Your task to perform on an android device: Search for a new desk on IKEA Image 0: 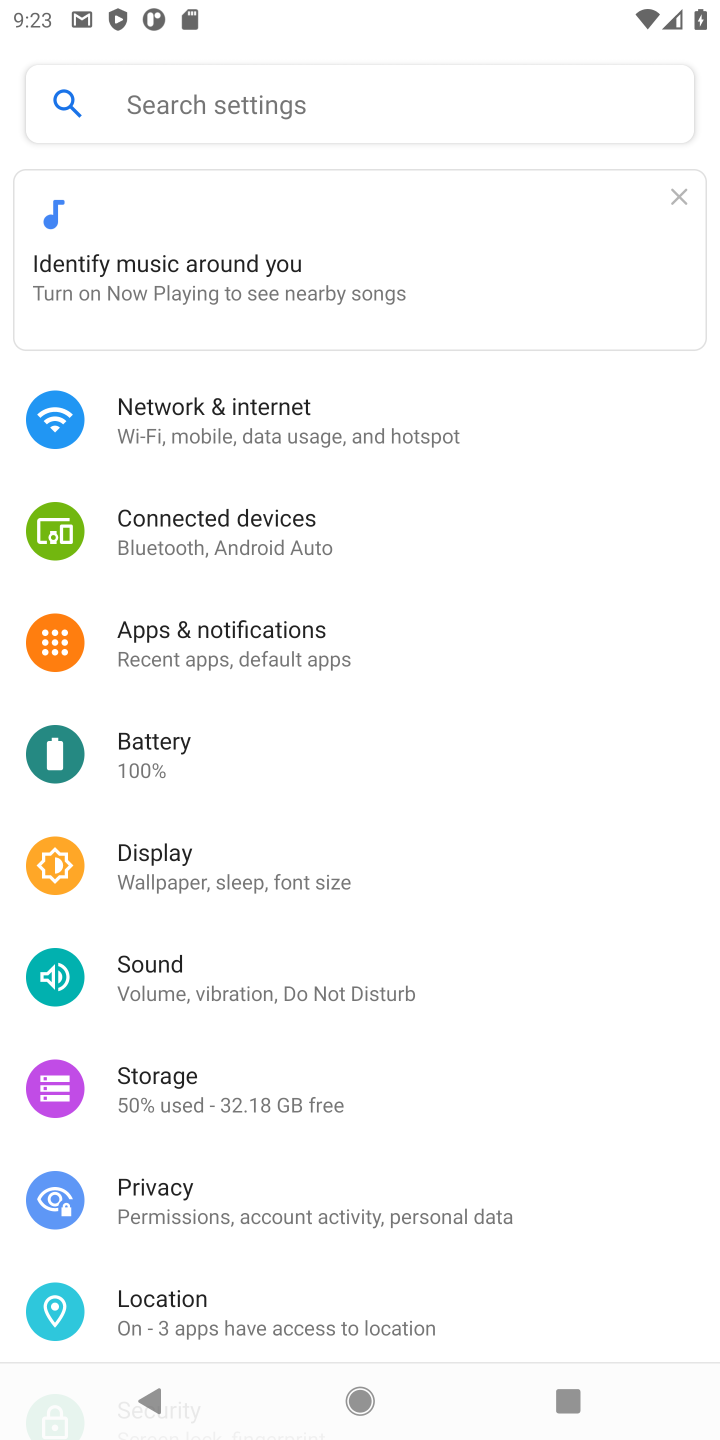
Step 0: press home button
Your task to perform on an android device: Search for a new desk on IKEA Image 1: 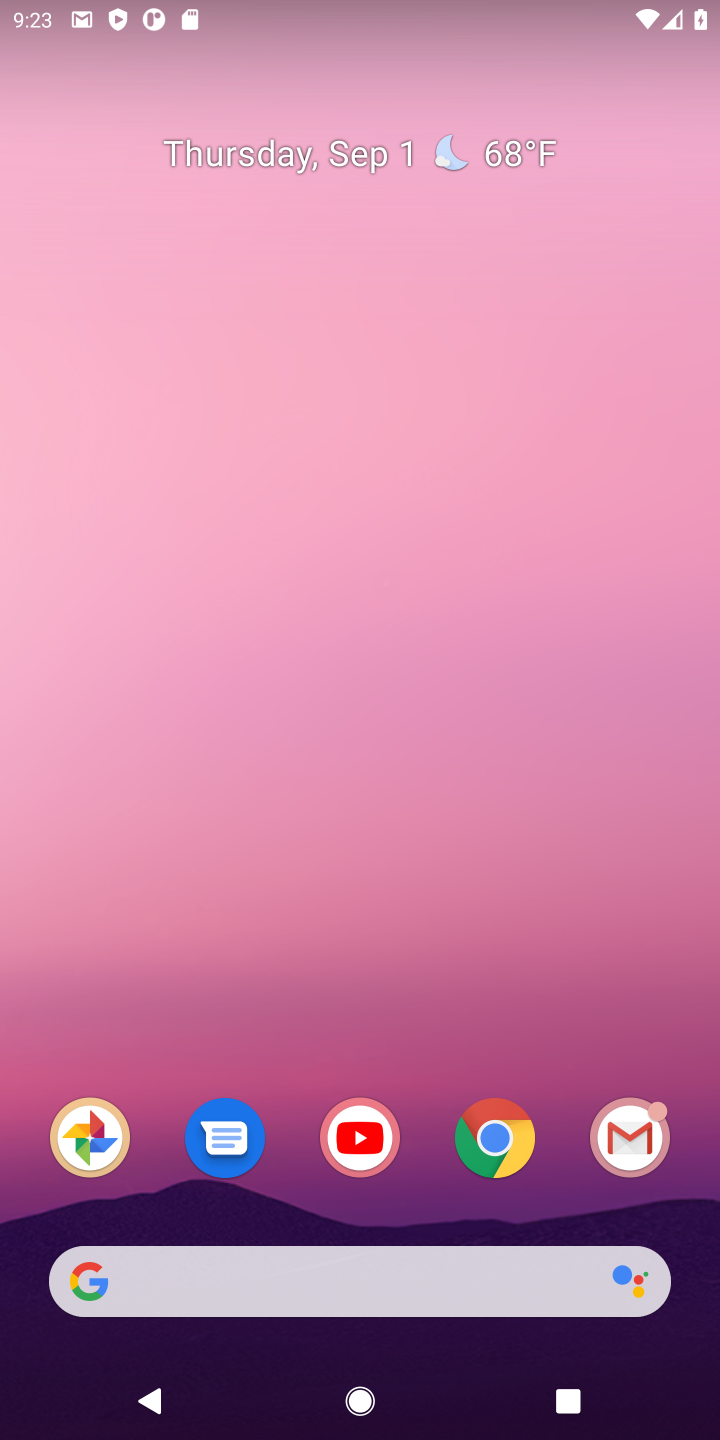
Step 1: click (493, 1143)
Your task to perform on an android device: Search for a new desk on IKEA Image 2: 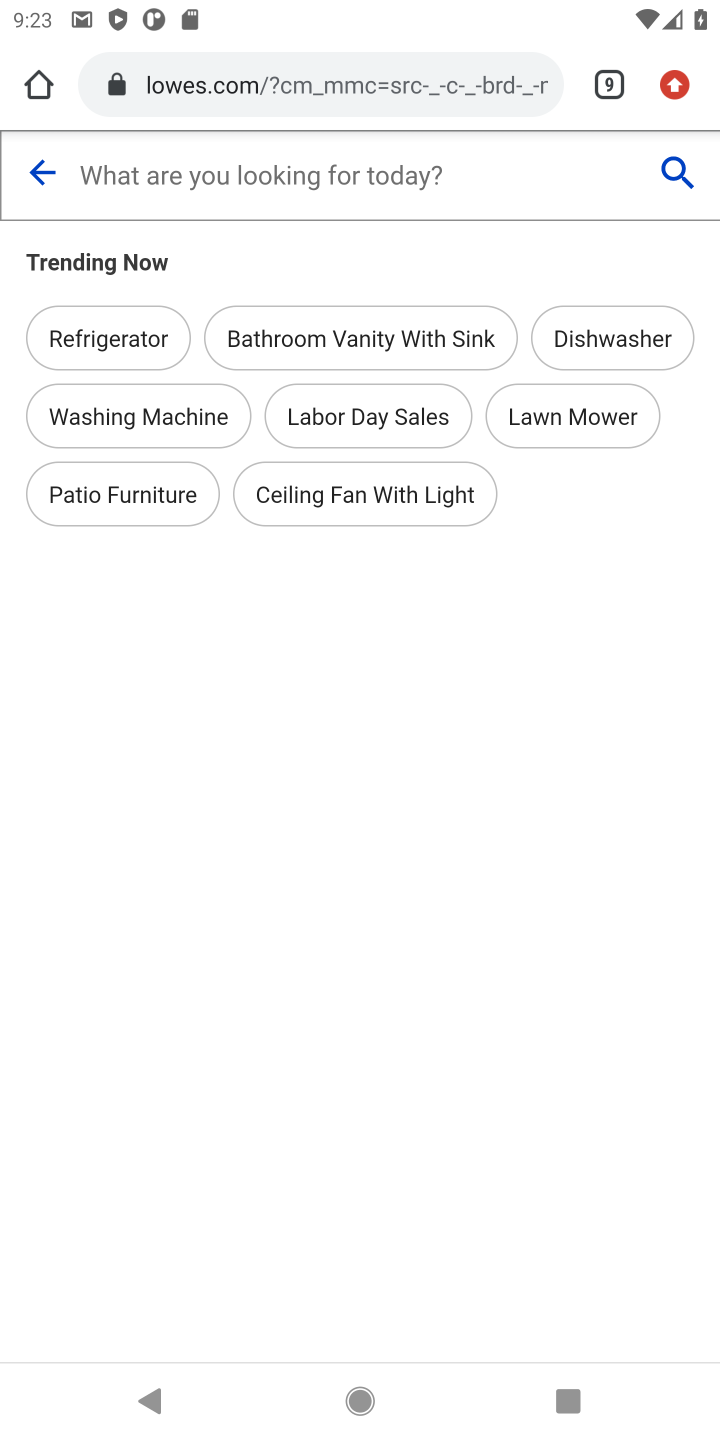
Step 2: click (619, 83)
Your task to perform on an android device: Search for a new desk on IKEA Image 3: 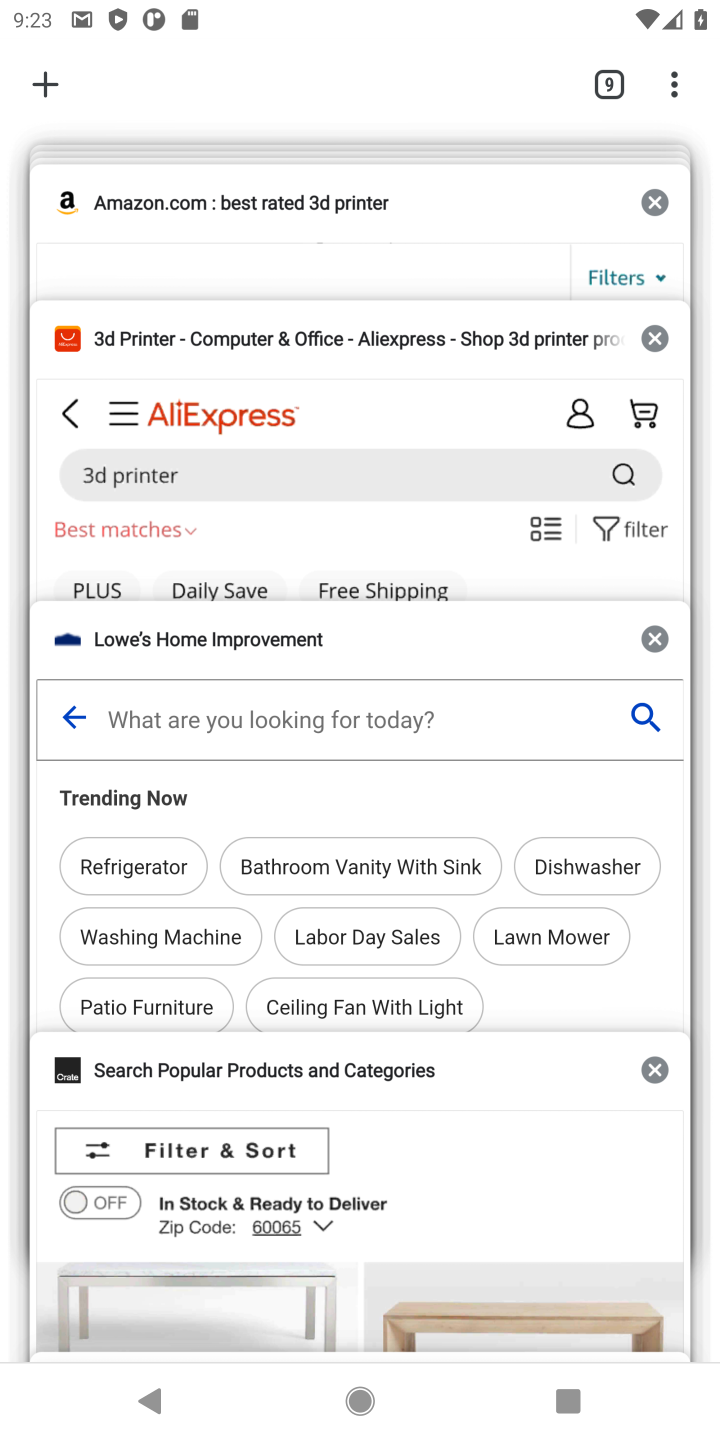
Step 3: drag from (388, 369) to (445, 1149)
Your task to perform on an android device: Search for a new desk on IKEA Image 4: 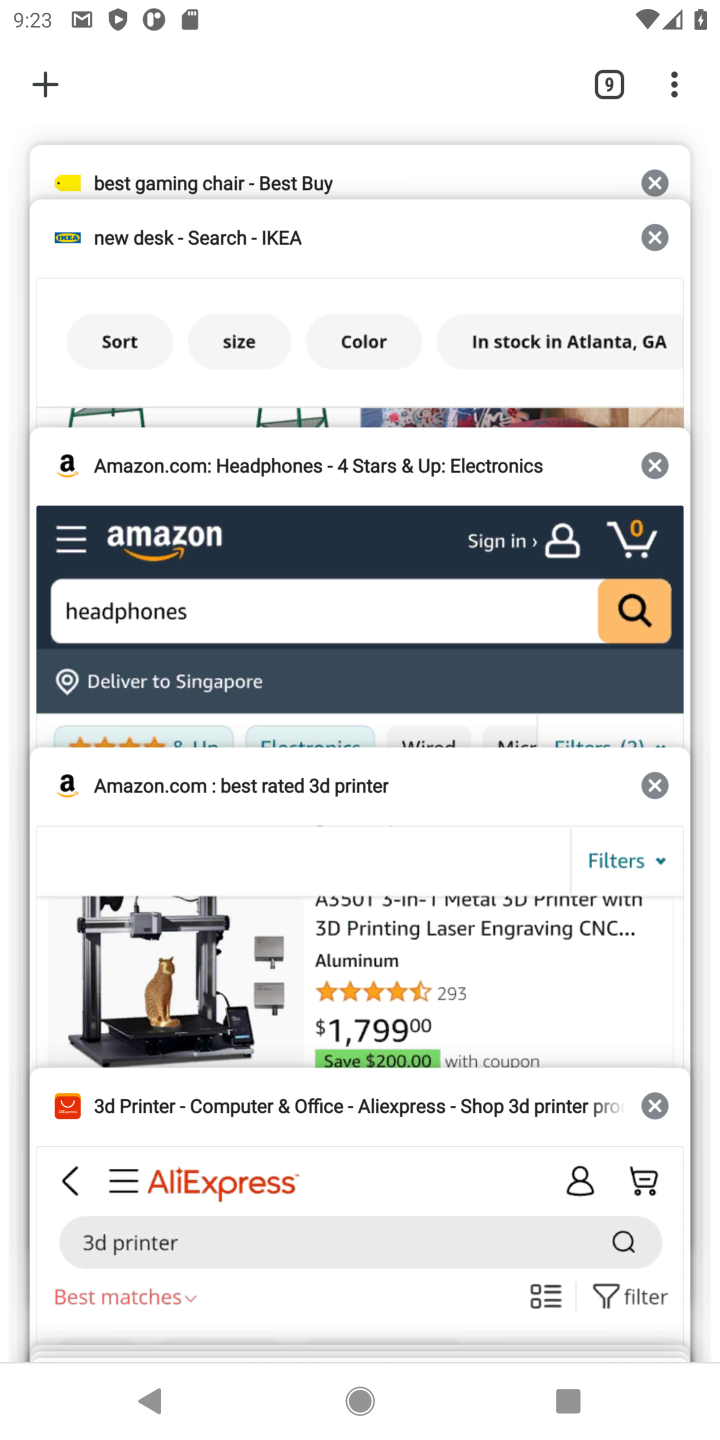
Step 4: click (301, 304)
Your task to perform on an android device: Search for a new desk on IKEA Image 5: 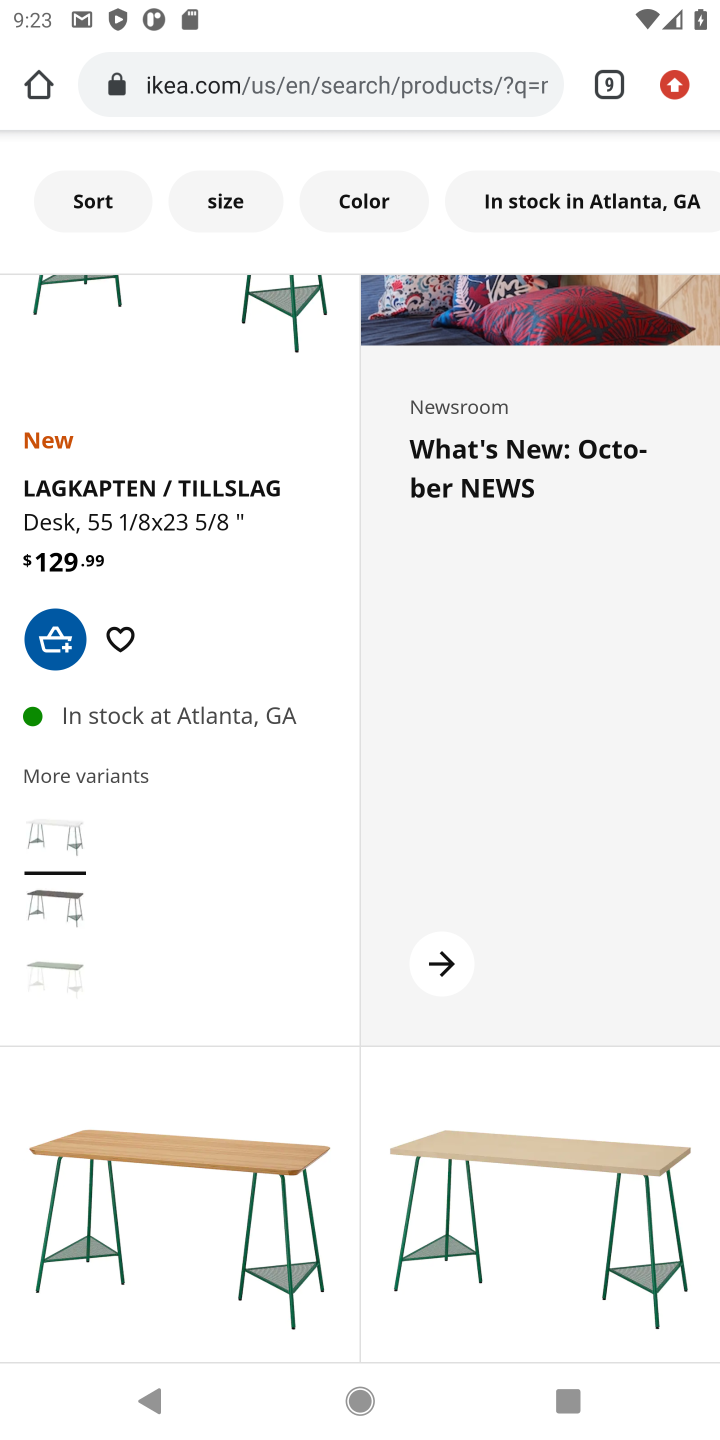
Step 5: task complete